Your task to perform on an android device: turn off data saver in the chrome app Image 0: 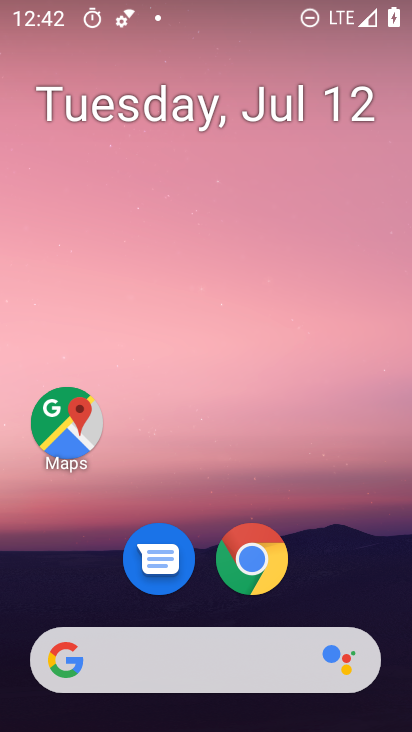
Step 0: click (255, 552)
Your task to perform on an android device: turn off data saver in the chrome app Image 1: 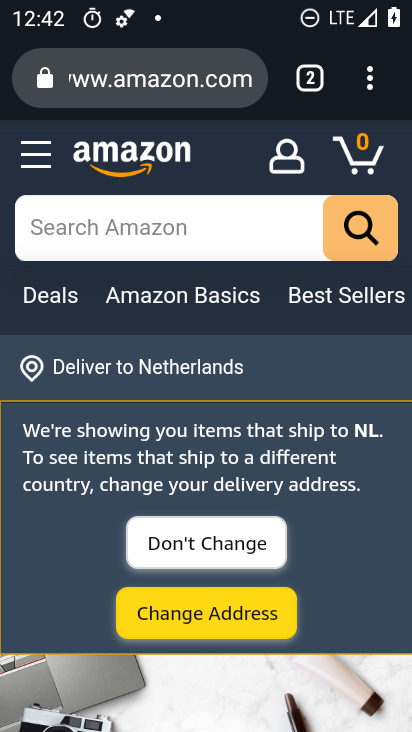
Step 1: drag from (375, 73) to (88, 608)
Your task to perform on an android device: turn off data saver in the chrome app Image 2: 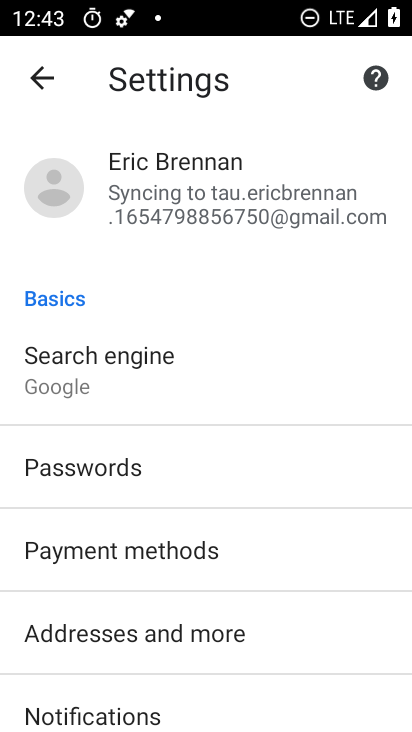
Step 2: drag from (314, 671) to (337, 150)
Your task to perform on an android device: turn off data saver in the chrome app Image 3: 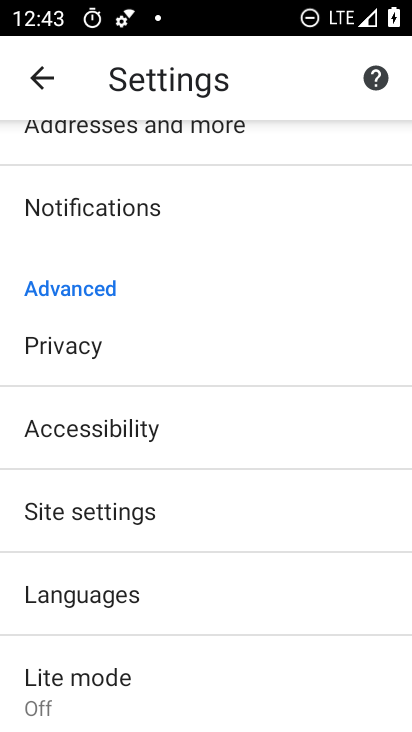
Step 3: click (95, 668)
Your task to perform on an android device: turn off data saver in the chrome app Image 4: 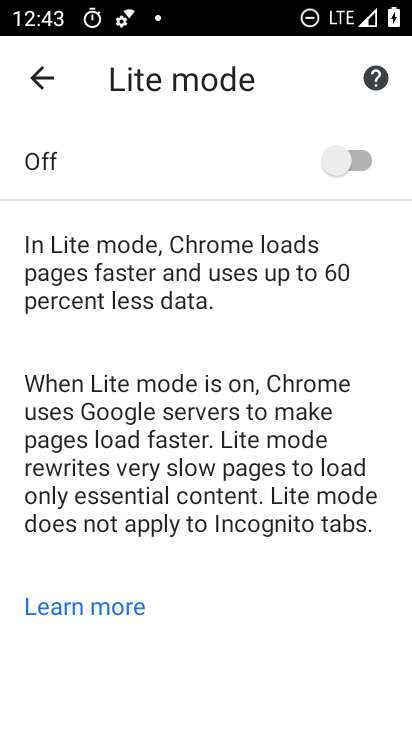
Step 4: task complete